Your task to perform on an android device: turn on notifications settings in the gmail app Image 0: 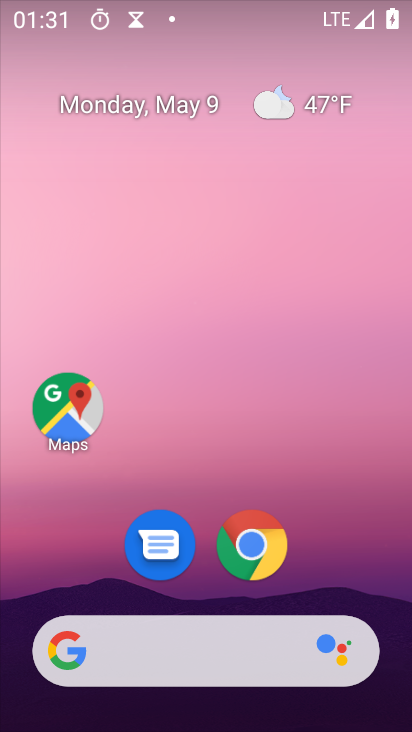
Step 0: drag from (349, 614) to (312, 0)
Your task to perform on an android device: turn on notifications settings in the gmail app Image 1: 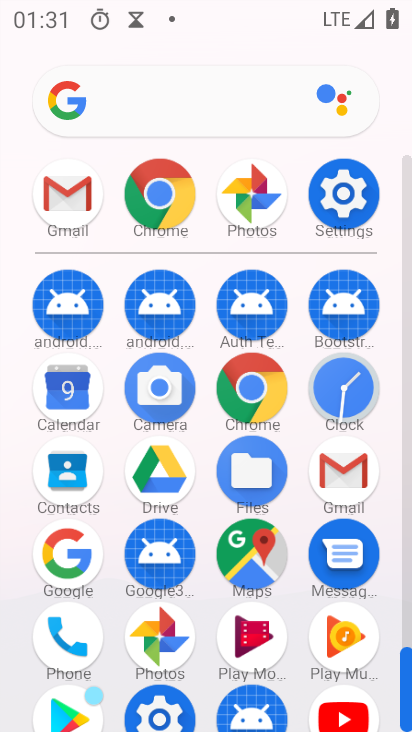
Step 1: click (342, 471)
Your task to perform on an android device: turn on notifications settings in the gmail app Image 2: 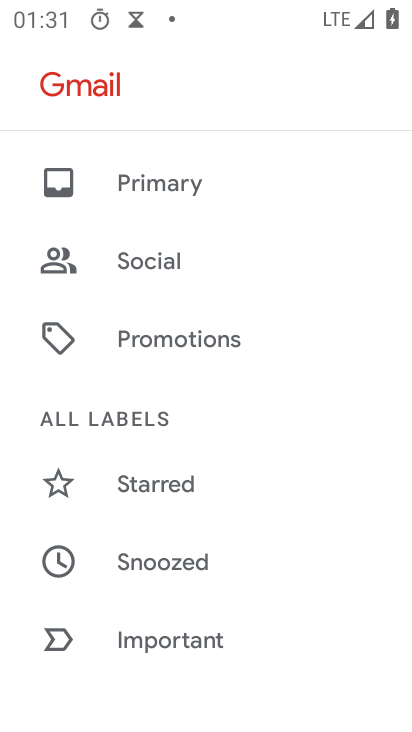
Step 2: drag from (162, 671) to (166, 93)
Your task to perform on an android device: turn on notifications settings in the gmail app Image 3: 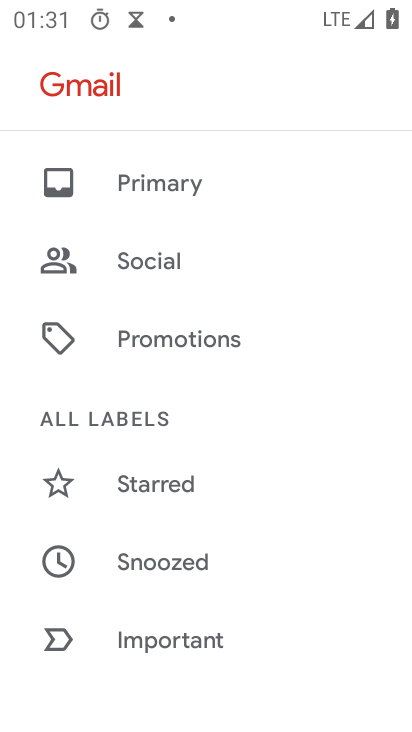
Step 3: drag from (278, 619) to (232, 159)
Your task to perform on an android device: turn on notifications settings in the gmail app Image 4: 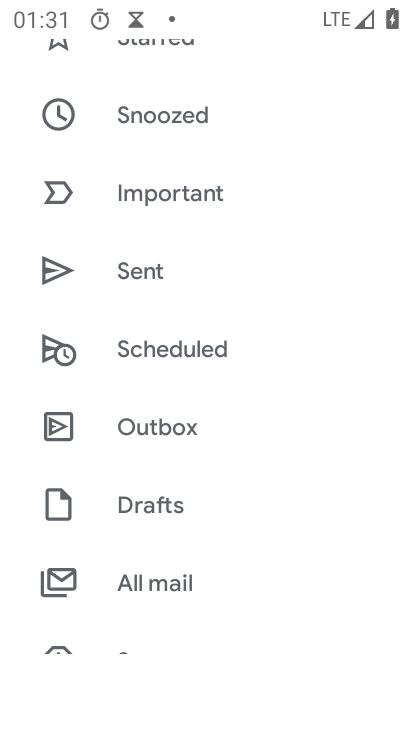
Step 4: drag from (247, 631) to (180, 23)
Your task to perform on an android device: turn on notifications settings in the gmail app Image 5: 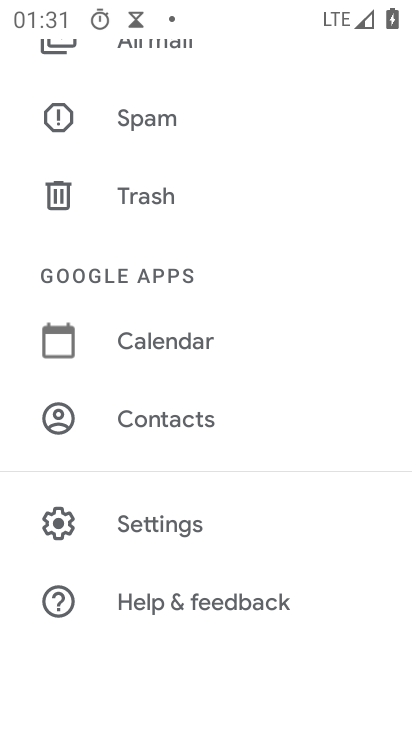
Step 5: click (204, 521)
Your task to perform on an android device: turn on notifications settings in the gmail app Image 6: 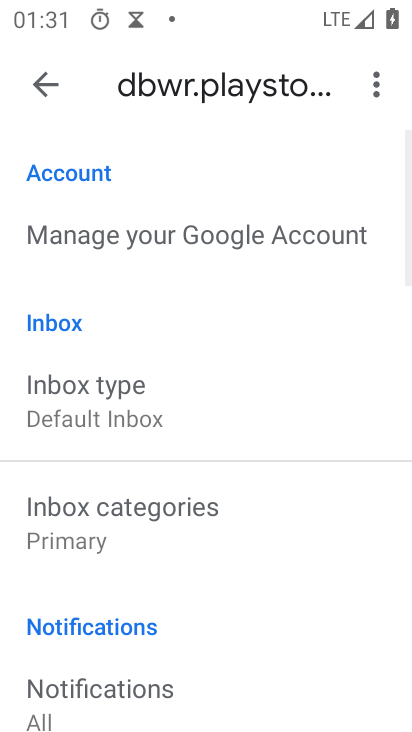
Step 6: drag from (254, 635) to (224, 183)
Your task to perform on an android device: turn on notifications settings in the gmail app Image 7: 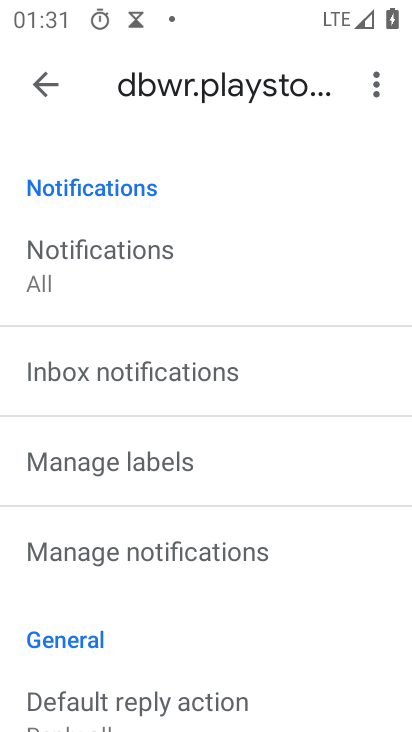
Step 7: click (258, 541)
Your task to perform on an android device: turn on notifications settings in the gmail app Image 8: 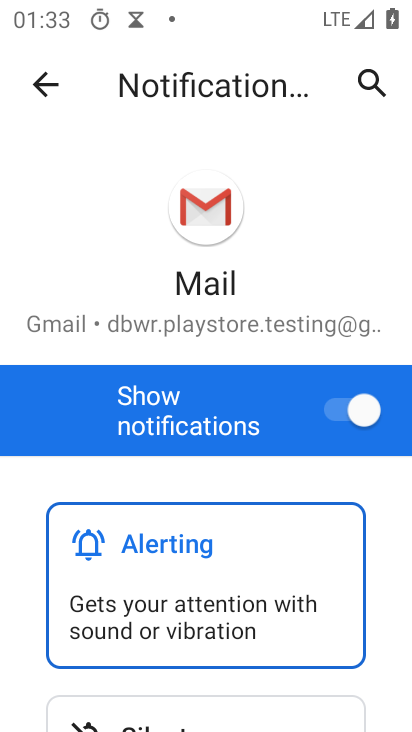
Step 8: task complete